Your task to perform on an android device: turn off airplane mode Image 0: 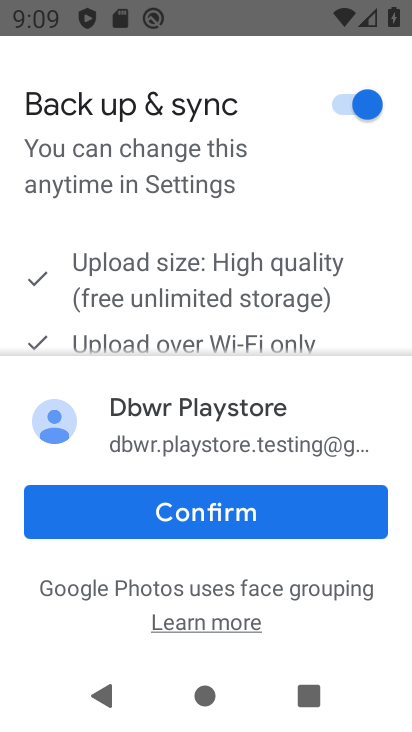
Step 0: press home button
Your task to perform on an android device: turn off airplane mode Image 1: 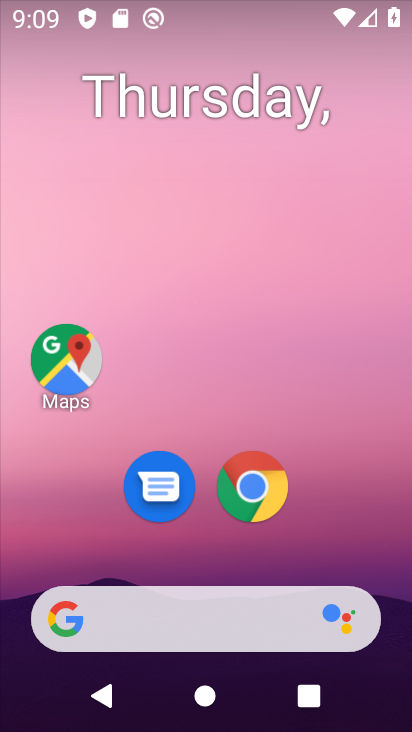
Step 1: drag from (214, 542) to (277, 34)
Your task to perform on an android device: turn off airplane mode Image 2: 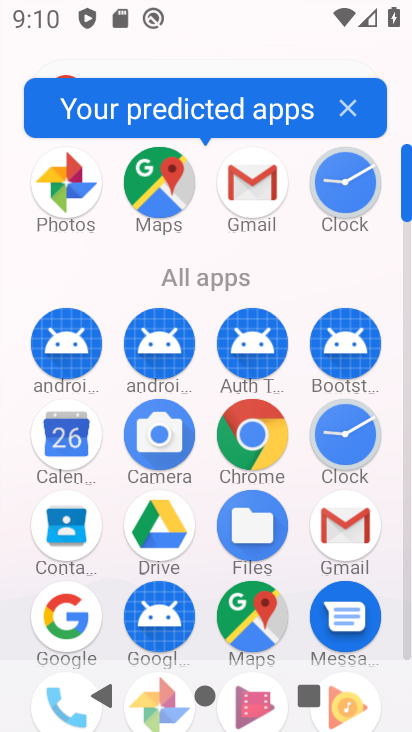
Step 2: drag from (197, 451) to (223, 188)
Your task to perform on an android device: turn off airplane mode Image 3: 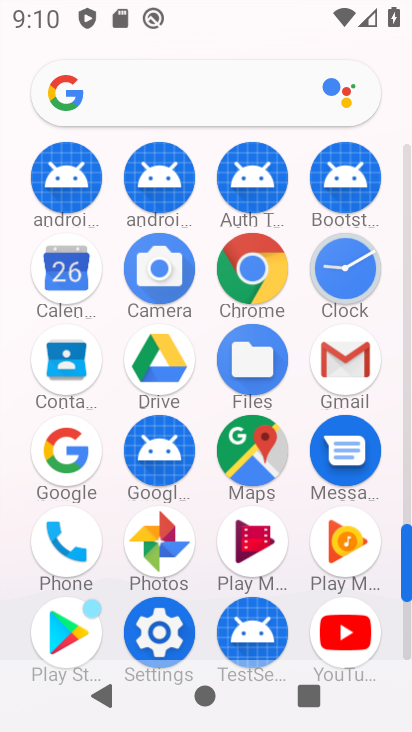
Step 3: click (161, 632)
Your task to perform on an android device: turn off airplane mode Image 4: 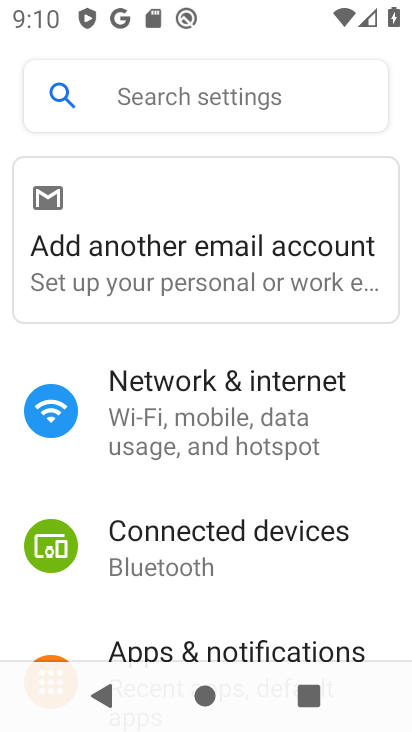
Step 4: click (238, 434)
Your task to perform on an android device: turn off airplane mode Image 5: 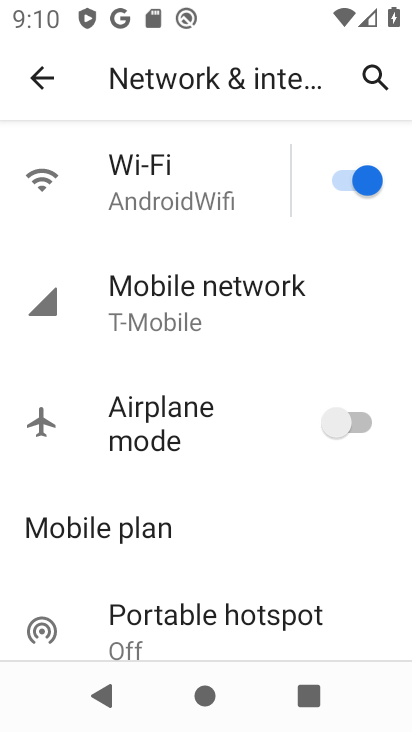
Step 5: task complete